Your task to perform on an android device: Show me popular videos on Youtube Image 0: 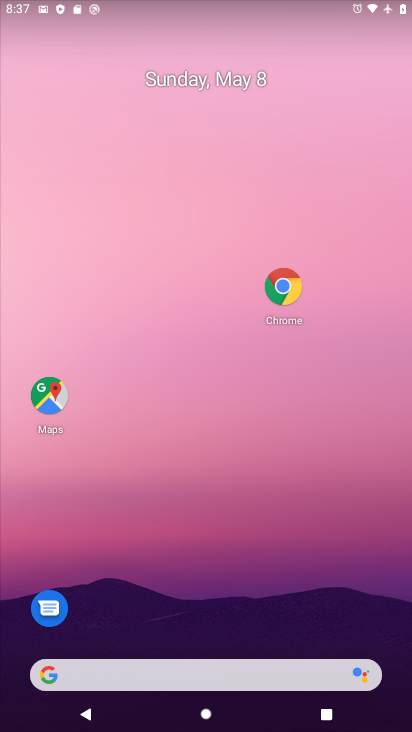
Step 0: drag from (255, 676) to (281, 130)
Your task to perform on an android device: Show me popular videos on Youtube Image 1: 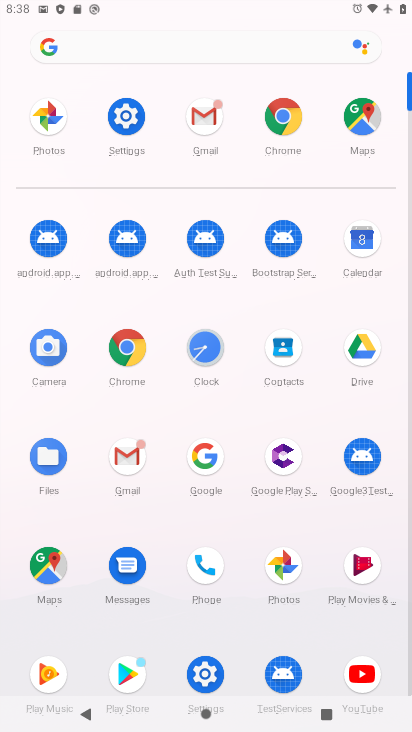
Step 1: click (365, 680)
Your task to perform on an android device: Show me popular videos on Youtube Image 2: 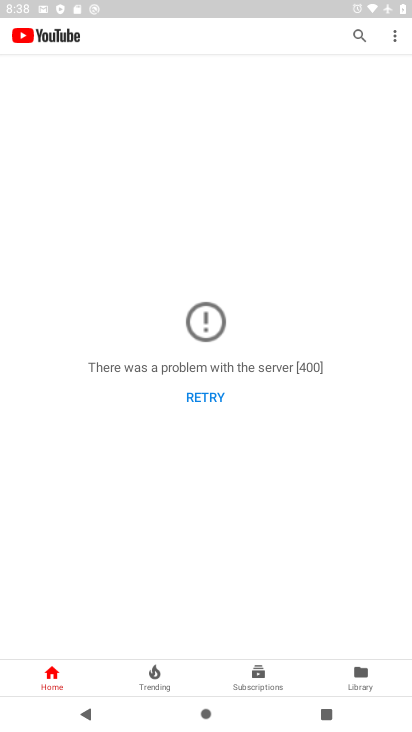
Step 2: click (200, 395)
Your task to perform on an android device: Show me popular videos on Youtube Image 3: 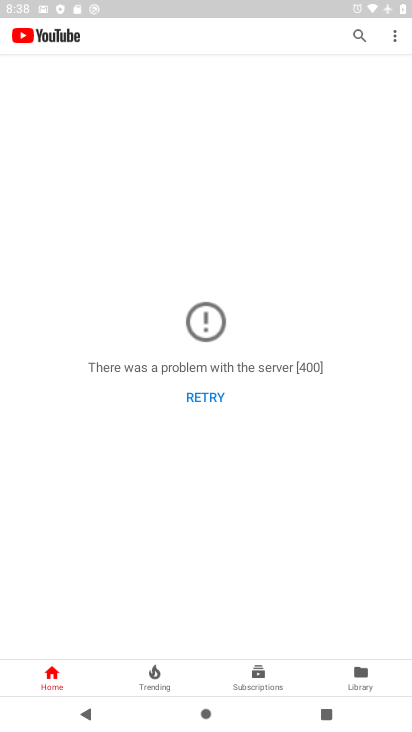
Step 3: task complete